Your task to perform on an android device: Go to Google Image 0: 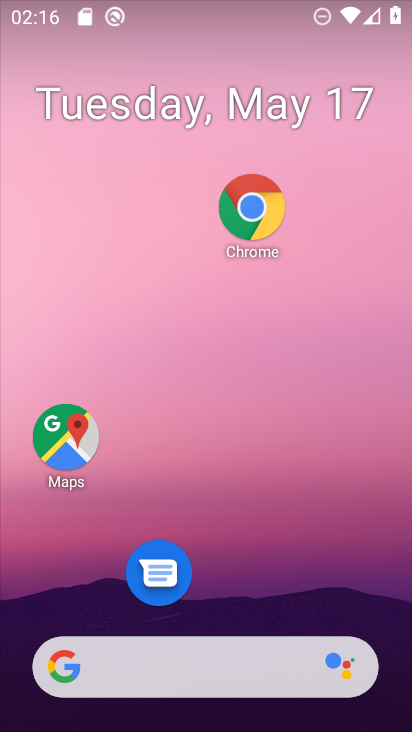
Step 0: drag from (263, 622) to (191, 63)
Your task to perform on an android device: Go to Google Image 1: 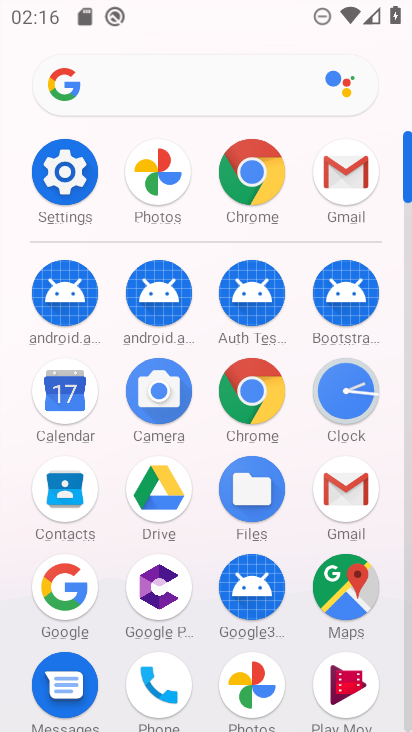
Step 1: click (68, 592)
Your task to perform on an android device: Go to Google Image 2: 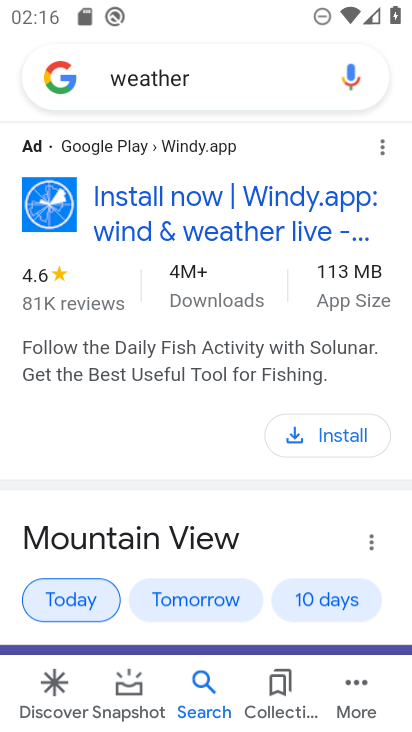
Step 2: drag from (254, 160) to (251, 719)
Your task to perform on an android device: Go to Google Image 3: 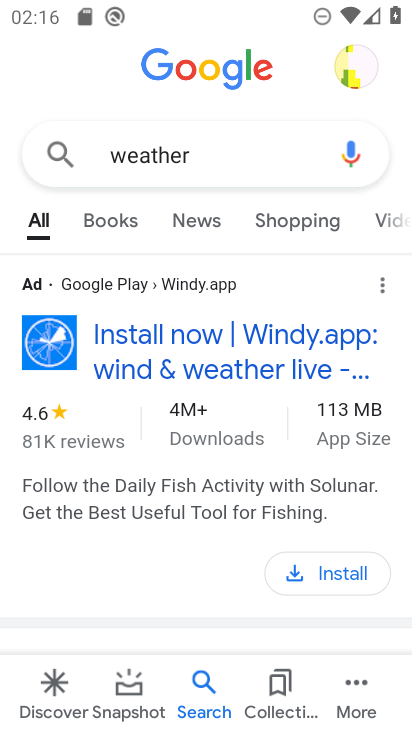
Step 3: click (255, 67)
Your task to perform on an android device: Go to Google Image 4: 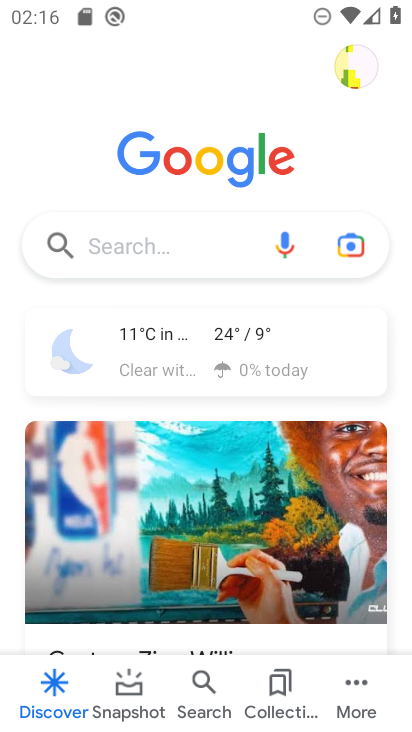
Step 4: task complete